Your task to perform on an android device: Check the news Image 0: 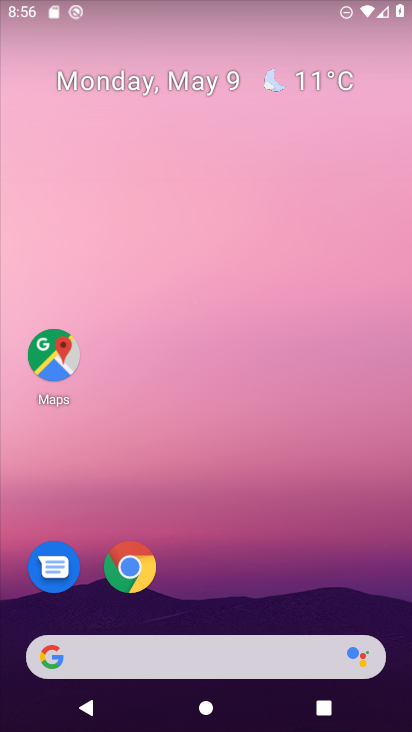
Step 0: drag from (1, 260) to (386, 257)
Your task to perform on an android device: Check the news Image 1: 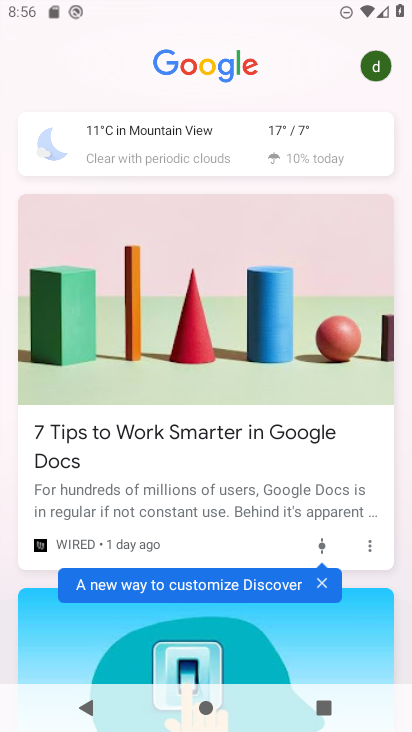
Step 1: task complete